Your task to perform on an android device: Show me recent news Image 0: 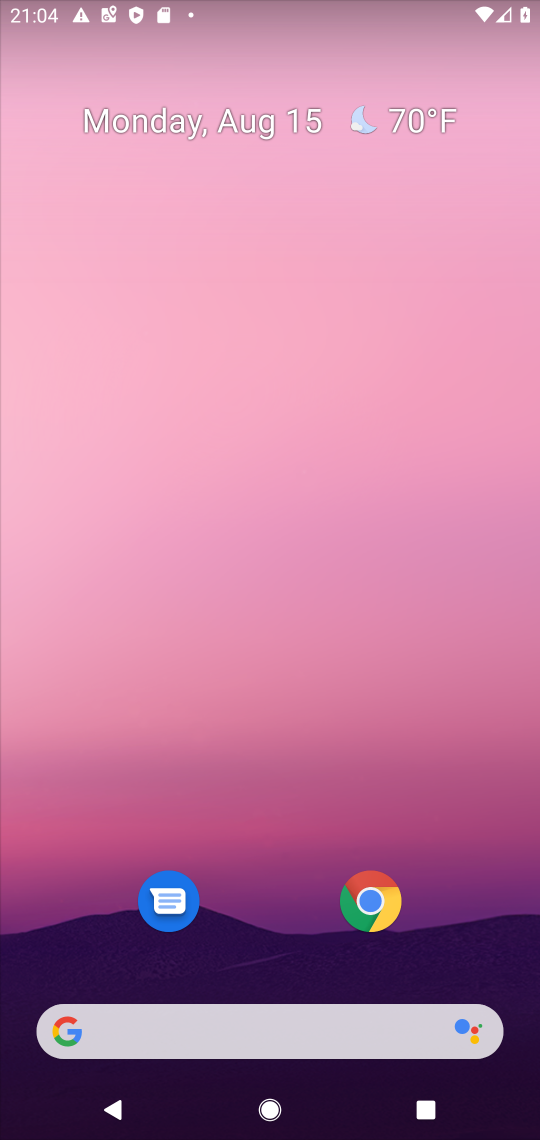
Step 0: click (260, 1022)
Your task to perform on an android device: Show me recent news Image 1: 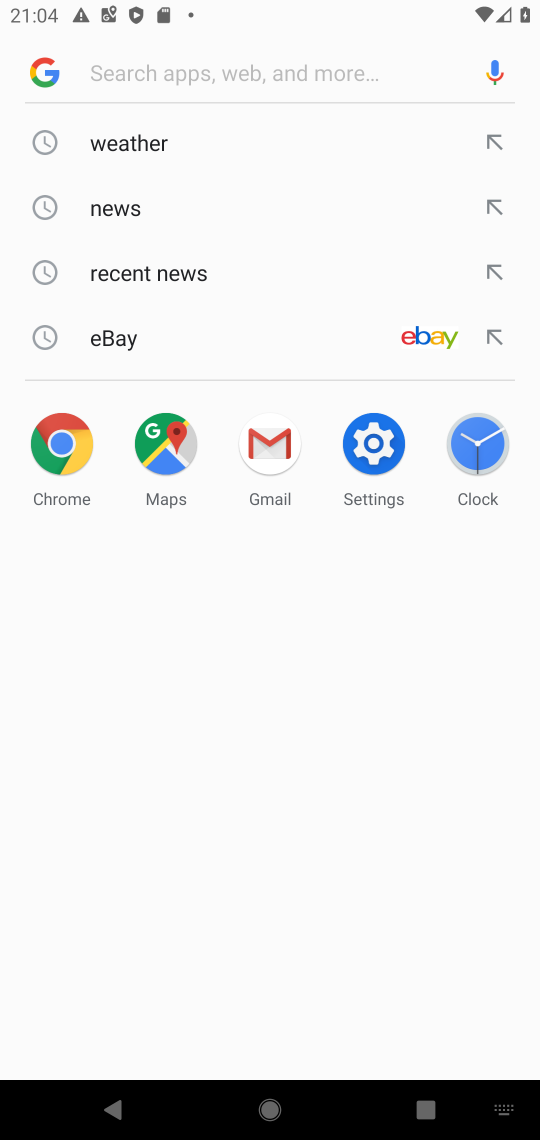
Step 1: click (222, 279)
Your task to perform on an android device: Show me recent news Image 2: 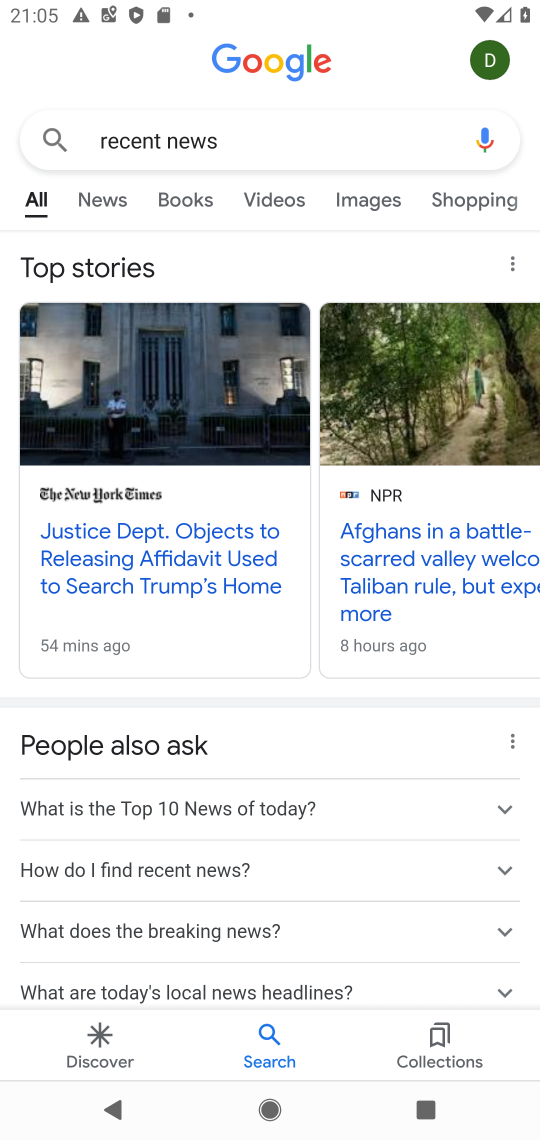
Step 2: task complete